Your task to perform on an android device: turn on notifications settings in the gmail app Image 0: 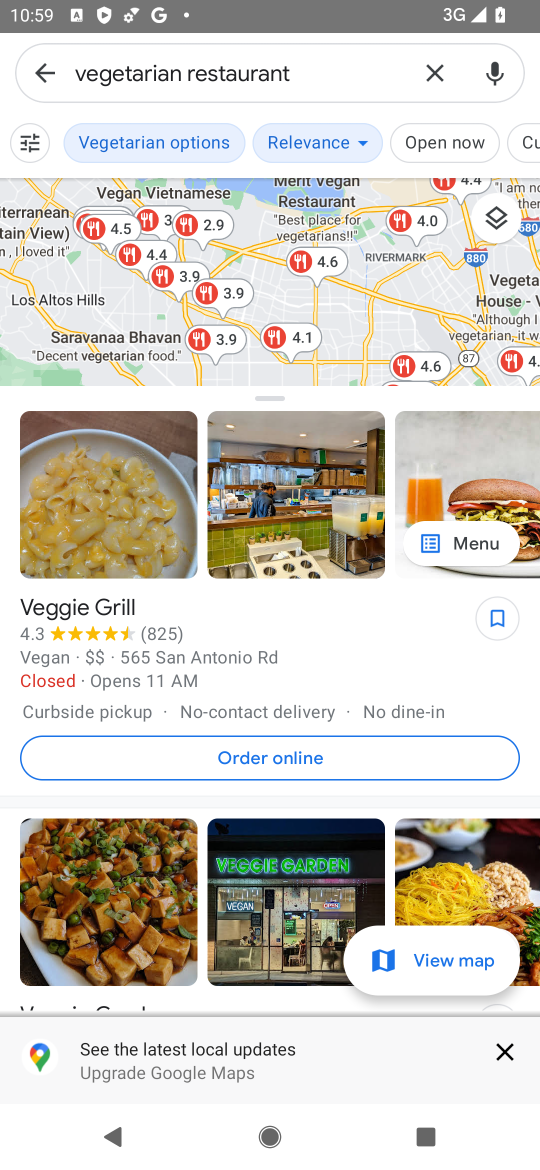
Step 0: press home button
Your task to perform on an android device: turn on notifications settings in the gmail app Image 1: 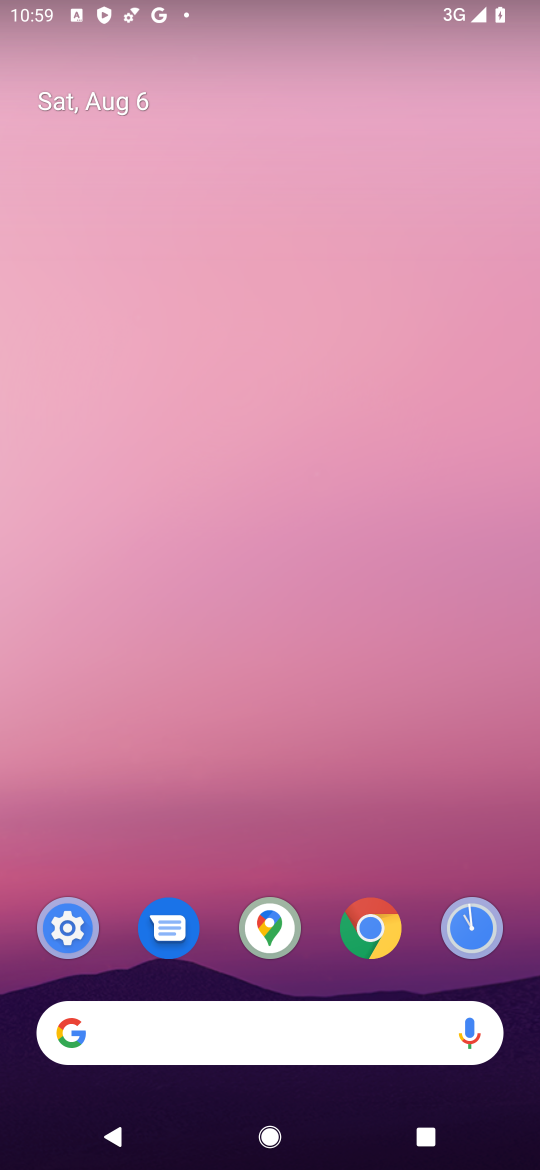
Step 1: drag from (302, 858) to (144, 195)
Your task to perform on an android device: turn on notifications settings in the gmail app Image 2: 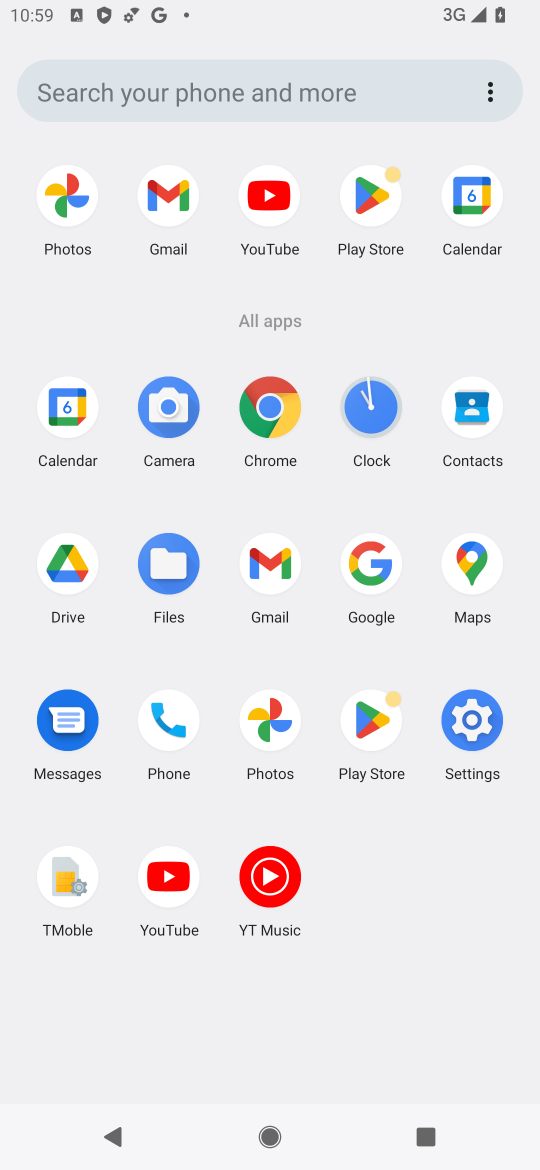
Step 2: click (169, 186)
Your task to perform on an android device: turn on notifications settings in the gmail app Image 3: 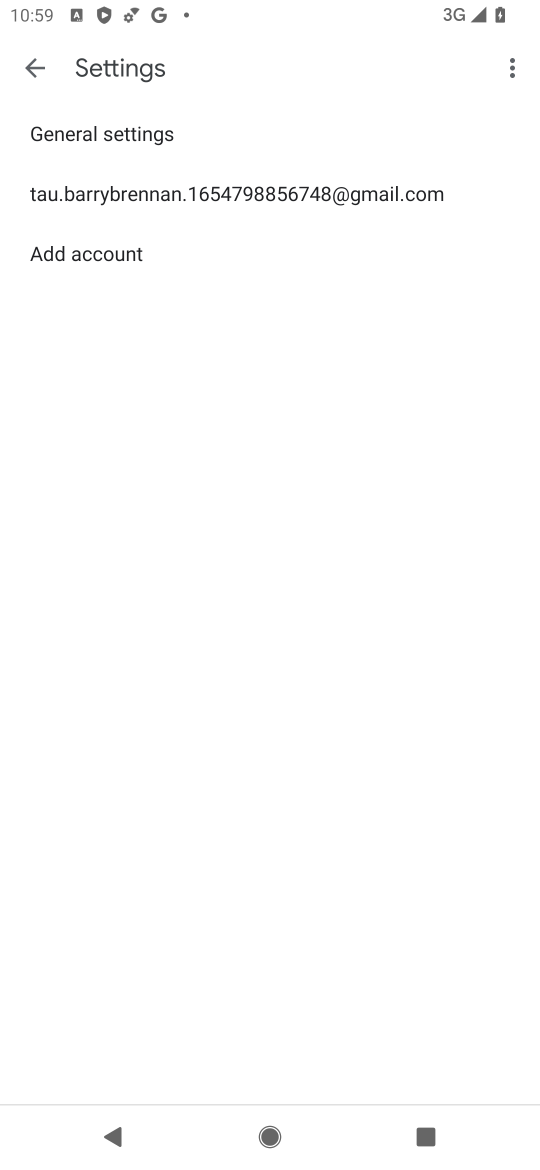
Step 3: click (124, 142)
Your task to perform on an android device: turn on notifications settings in the gmail app Image 4: 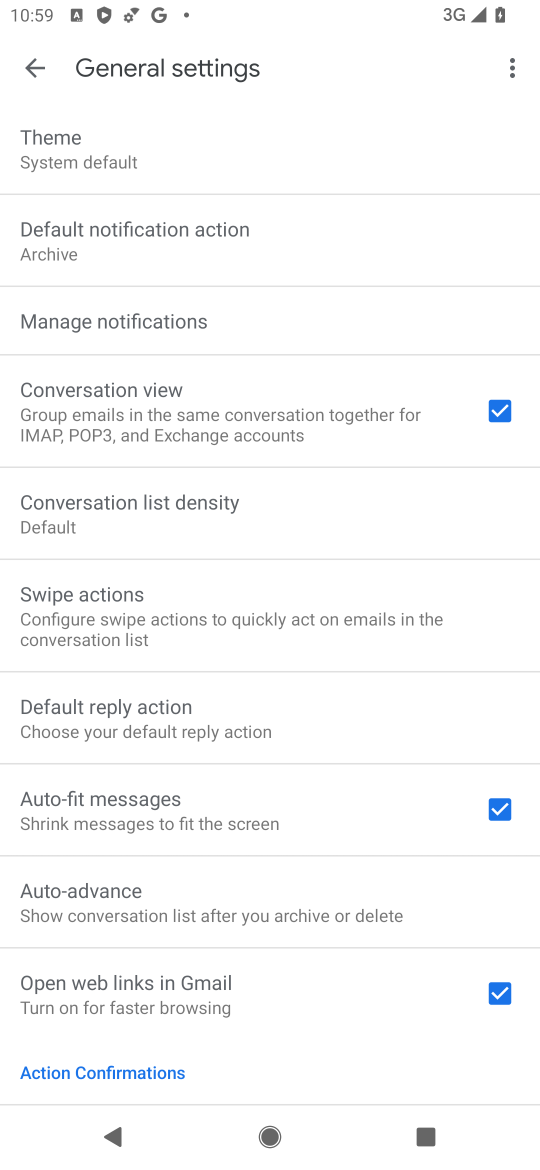
Step 4: click (163, 330)
Your task to perform on an android device: turn on notifications settings in the gmail app Image 5: 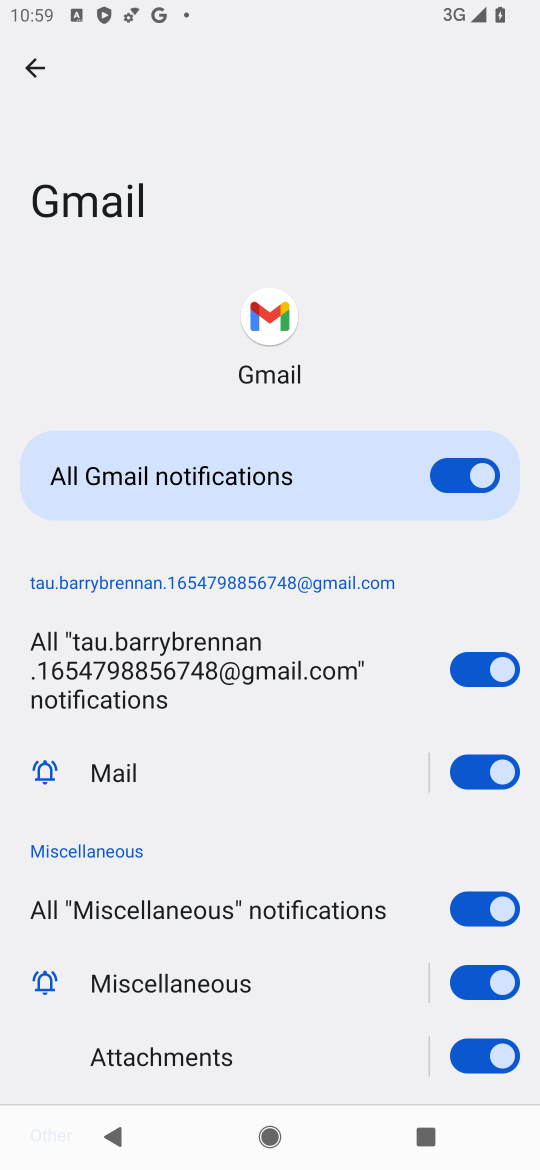
Step 5: task complete